Your task to perform on an android device: install app "Google Home" Image 0: 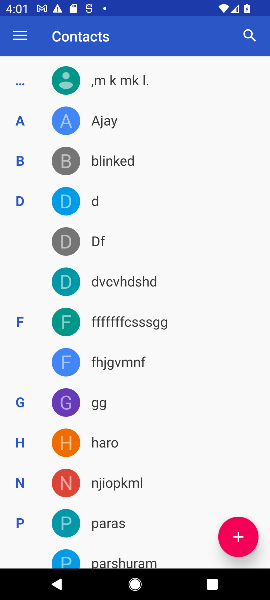
Step 0: press home button
Your task to perform on an android device: install app "Google Home" Image 1: 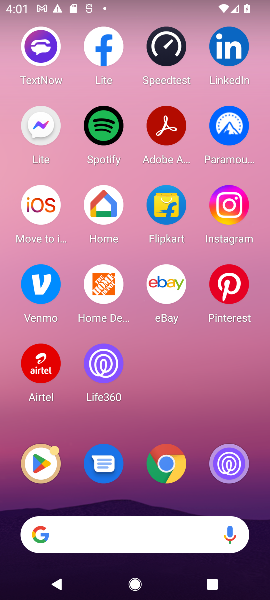
Step 1: drag from (101, 537) to (254, 117)
Your task to perform on an android device: install app "Google Home" Image 2: 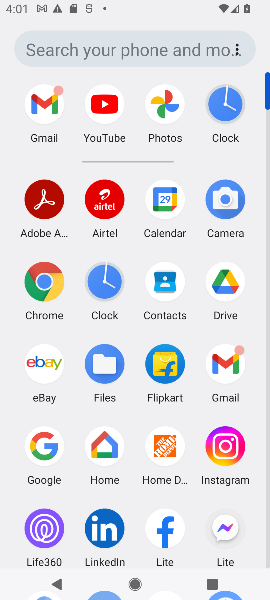
Step 2: drag from (135, 561) to (149, 281)
Your task to perform on an android device: install app "Google Home" Image 3: 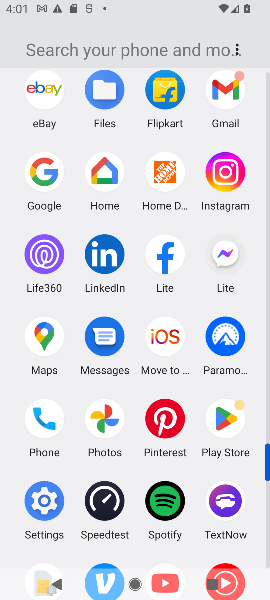
Step 3: click (227, 422)
Your task to perform on an android device: install app "Google Home" Image 4: 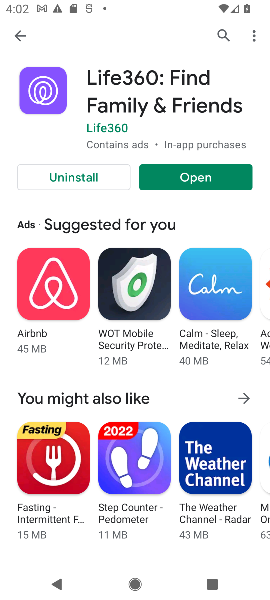
Step 4: click (224, 31)
Your task to perform on an android device: install app "Google Home" Image 5: 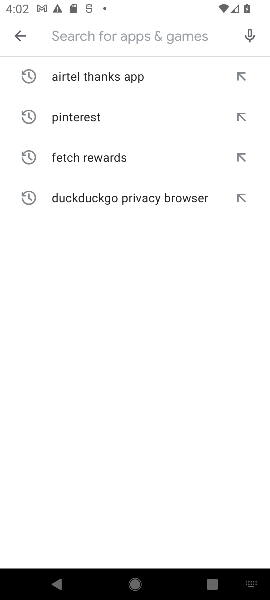
Step 5: click (107, 27)
Your task to perform on an android device: install app "Google Home" Image 6: 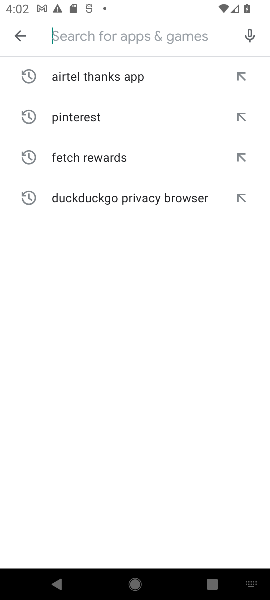
Step 6: type "Google Home"
Your task to perform on an android device: install app "Google Home" Image 7: 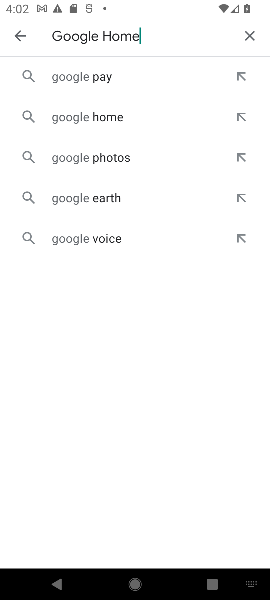
Step 7: type ""
Your task to perform on an android device: install app "Google Home" Image 8: 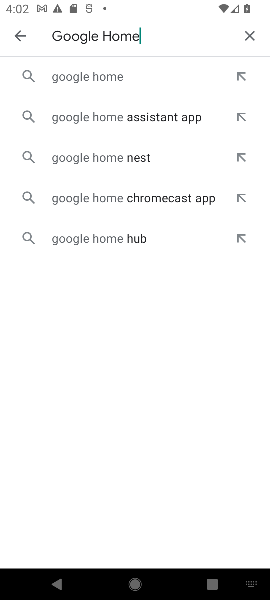
Step 8: click (84, 78)
Your task to perform on an android device: install app "Google Home" Image 9: 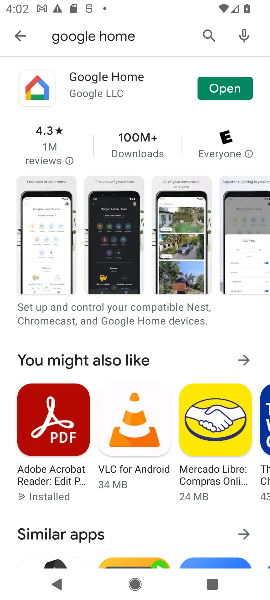
Step 9: task complete